Your task to perform on an android device: Set the phone to "Do not disturb". Image 0: 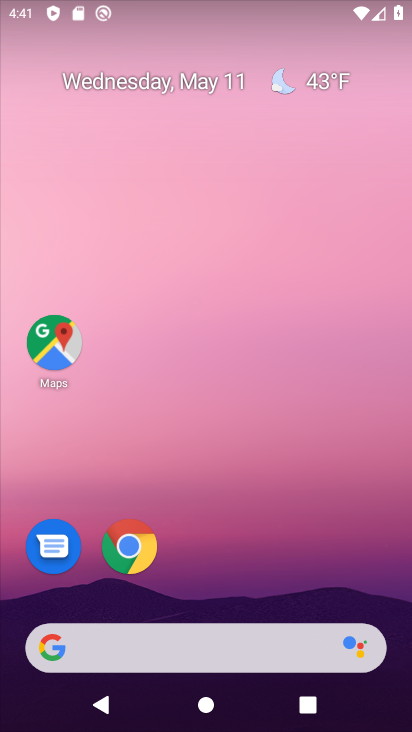
Step 0: drag from (198, 625) to (203, 167)
Your task to perform on an android device: Set the phone to "Do not disturb". Image 1: 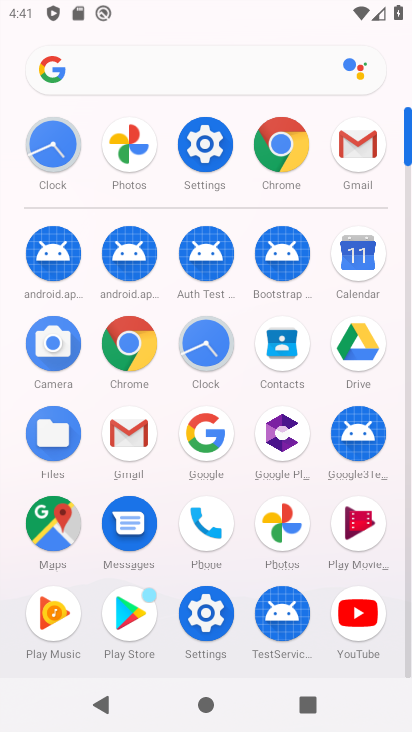
Step 1: click (208, 141)
Your task to perform on an android device: Set the phone to "Do not disturb". Image 2: 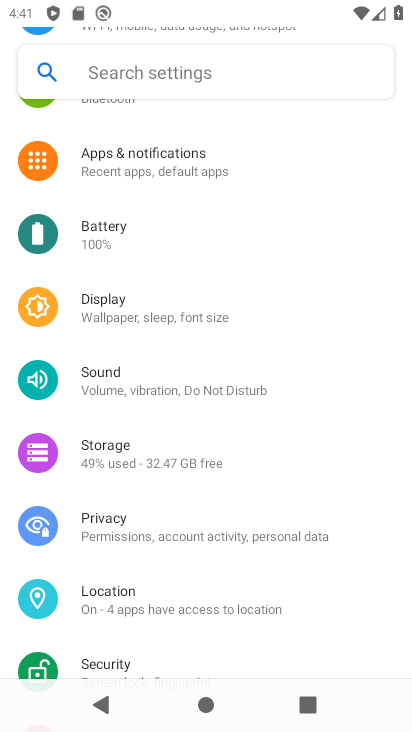
Step 2: click (182, 391)
Your task to perform on an android device: Set the phone to "Do not disturb". Image 3: 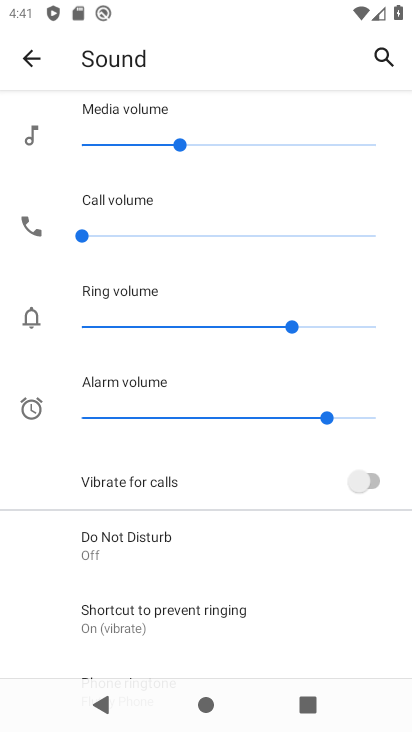
Step 3: click (182, 541)
Your task to perform on an android device: Set the phone to "Do not disturb". Image 4: 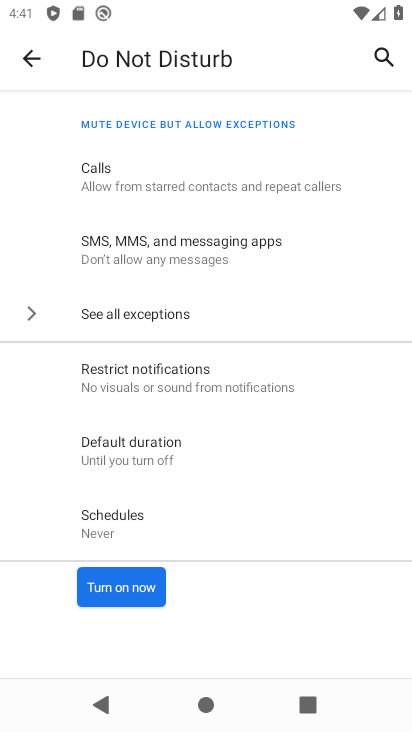
Step 4: click (121, 590)
Your task to perform on an android device: Set the phone to "Do not disturb". Image 5: 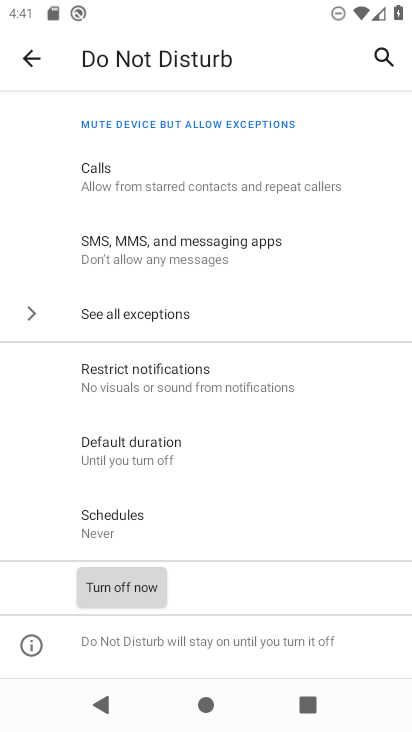
Step 5: task complete